Your task to perform on an android device: What's the weather going to be this weekend? Image 0: 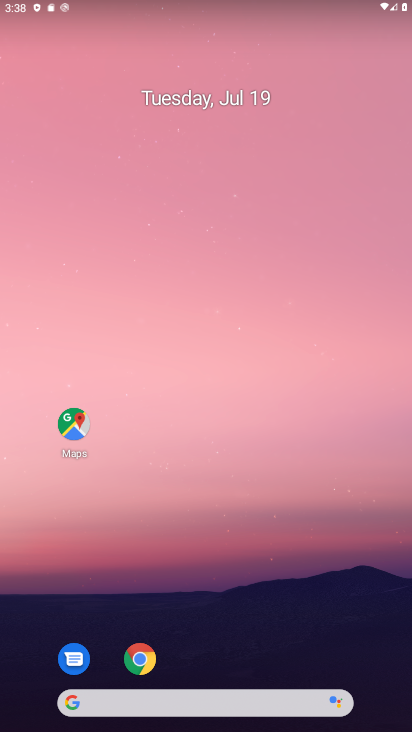
Step 0: press home button
Your task to perform on an android device: What's the weather going to be this weekend? Image 1: 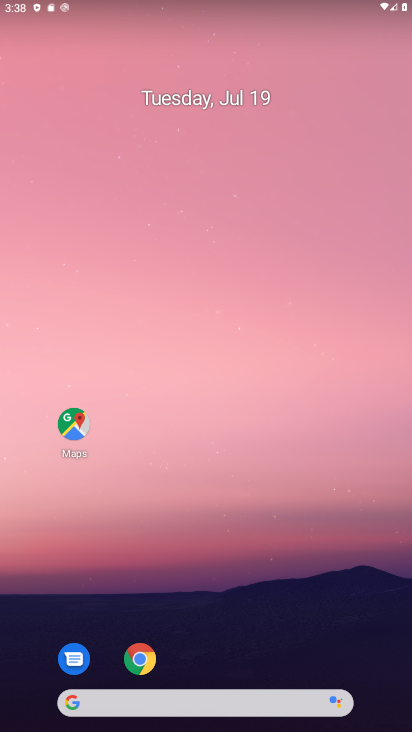
Step 1: click (362, 116)
Your task to perform on an android device: What's the weather going to be this weekend? Image 2: 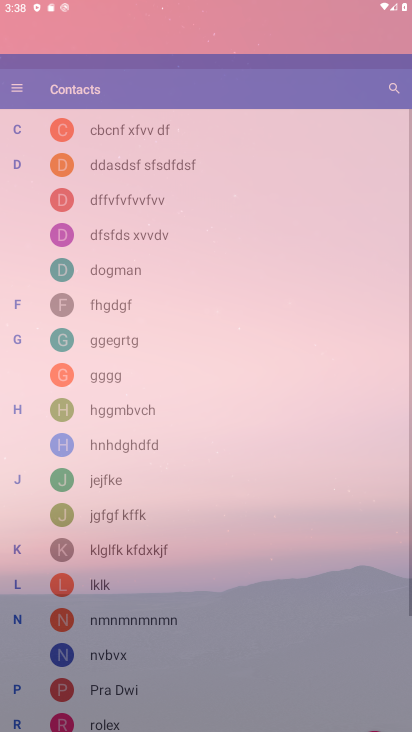
Step 2: drag from (295, 663) to (259, 94)
Your task to perform on an android device: What's the weather going to be this weekend? Image 3: 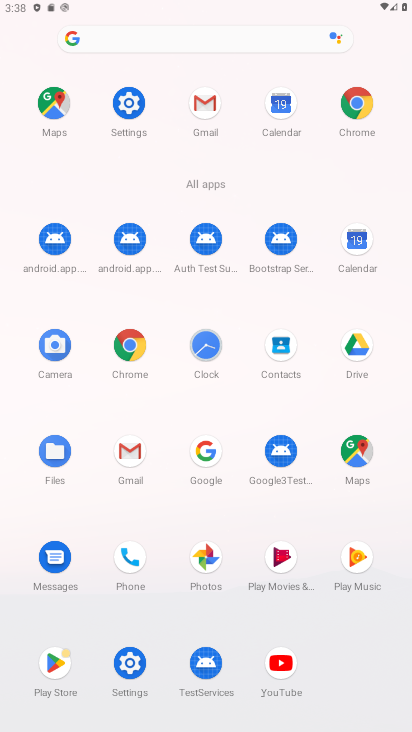
Step 3: click (348, 102)
Your task to perform on an android device: What's the weather going to be this weekend? Image 4: 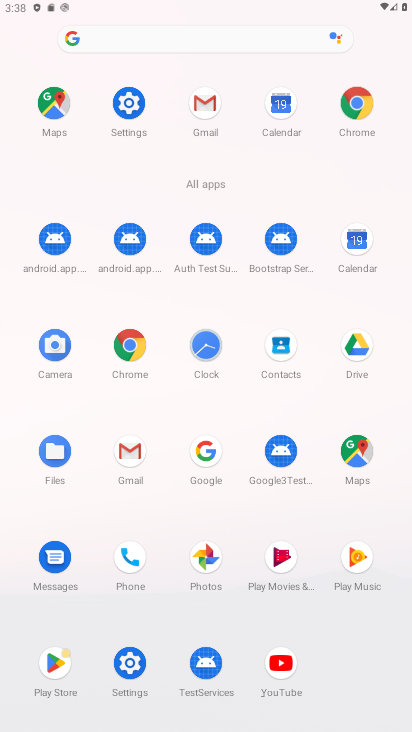
Step 4: click (348, 102)
Your task to perform on an android device: What's the weather going to be this weekend? Image 5: 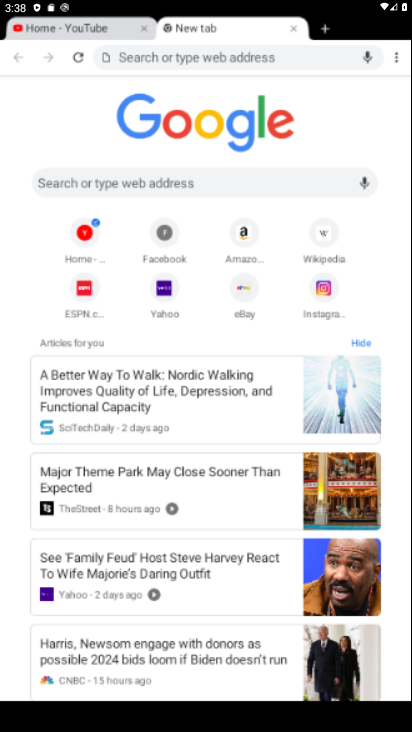
Step 5: click (349, 101)
Your task to perform on an android device: What's the weather going to be this weekend? Image 6: 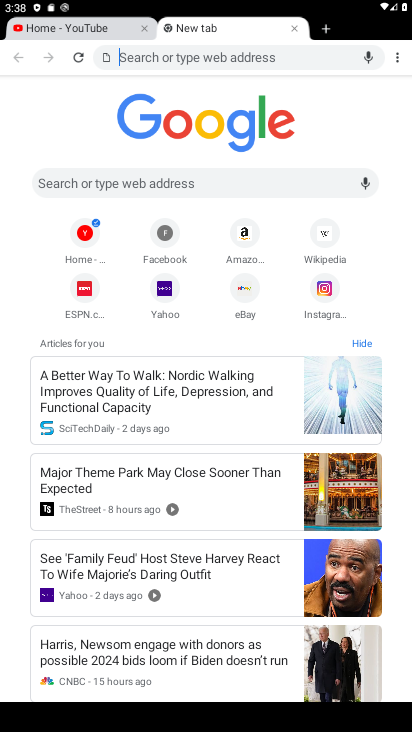
Step 6: click (75, 182)
Your task to perform on an android device: What's the weather going to be this weekend? Image 7: 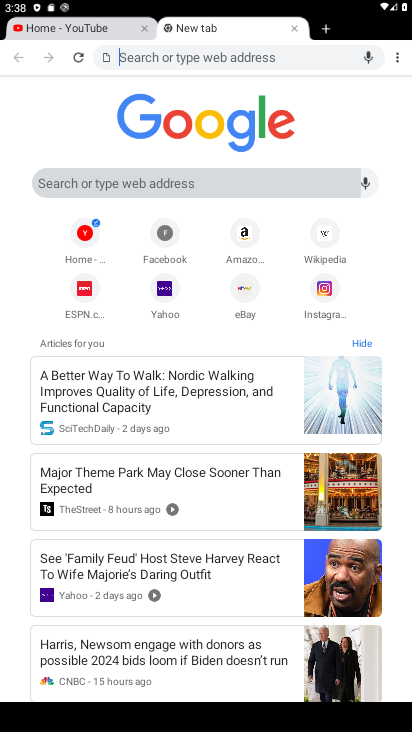
Step 7: click (80, 176)
Your task to perform on an android device: What's the weather going to be this weekend? Image 8: 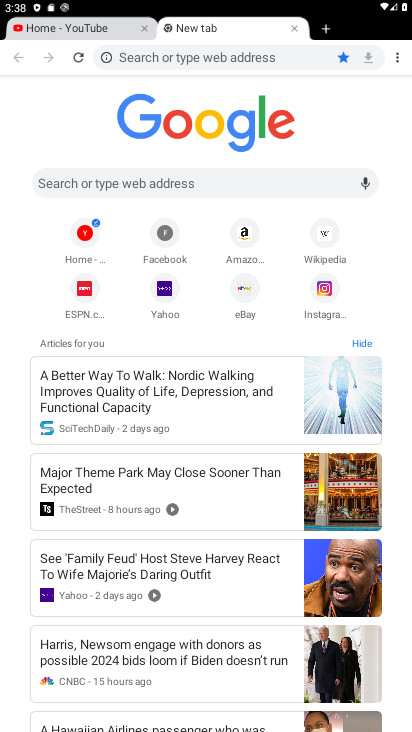
Step 8: click (77, 183)
Your task to perform on an android device: What's the weather going to be this weekend? Image 9: 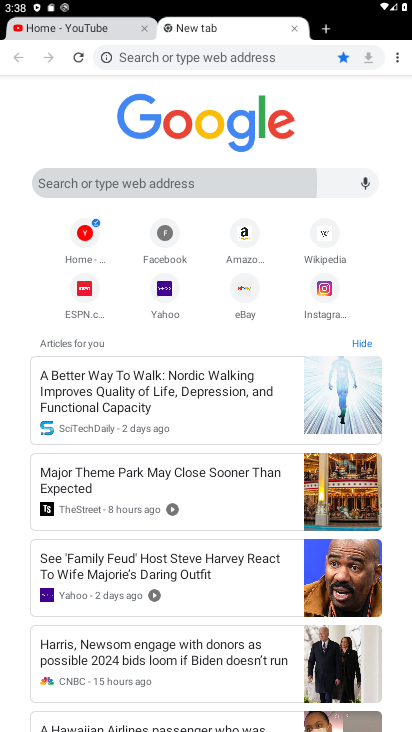
Step 9: click (77, 183)
Your task to perform on an android device: What's the weather going to be this weekend? Image 10: 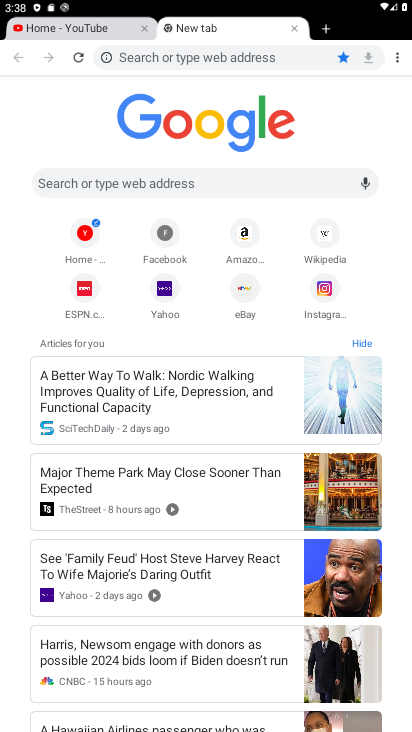
Step 10: click (140, 51)
Your task to perform on an android device: What's the weather going to be this weekend? Image 11: 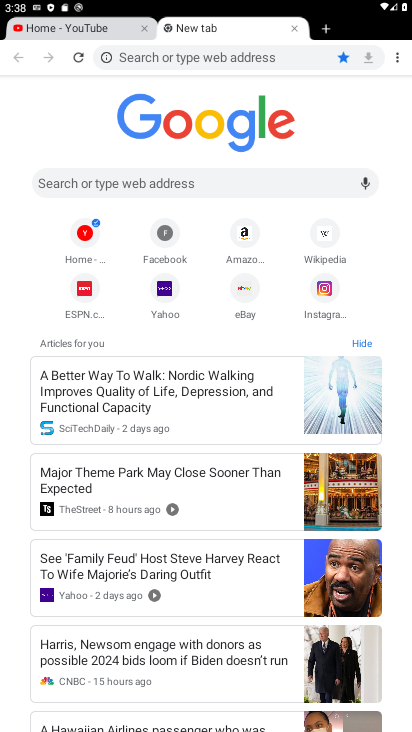
Step 11: click (128, 55)
Your task to perform on an android device: What's the weather going to be this weekend? Image 12: 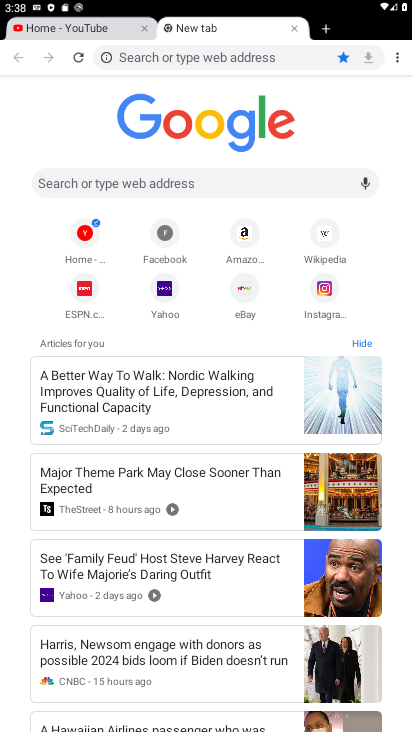
Step 12: click (132, 55)
Your task to perform on an android device: What's the weather going to be this weekend? Image 13: 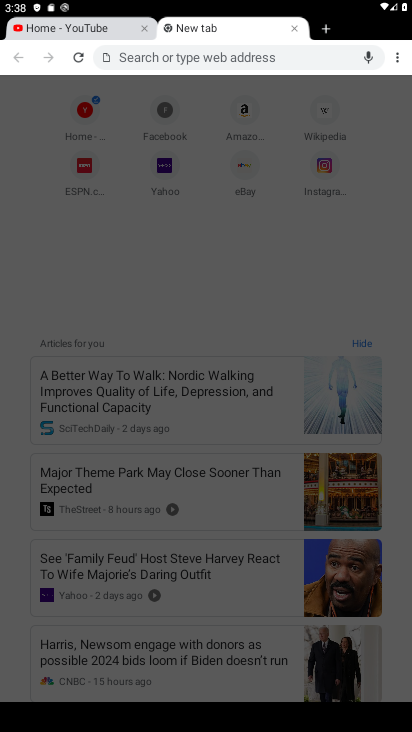
Step 13: click (132, 55)
Your task to perform on an android device: What's the weather going to be this weekend? Image 14: 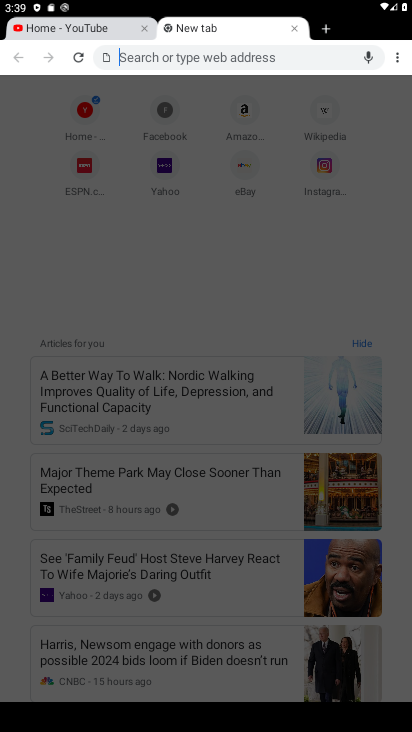
Step 14: type "what's th e weather going to be this weekend?"
Your task to perform on an android device: What's the weather going to be this weekend? Image 15: 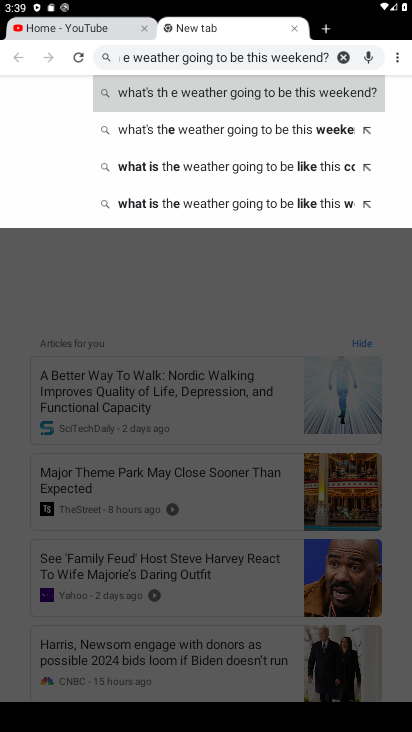
Step 15: click (314, 112)
Your task to perform on an android device: What's the weather going to be this weekend? Image 16: 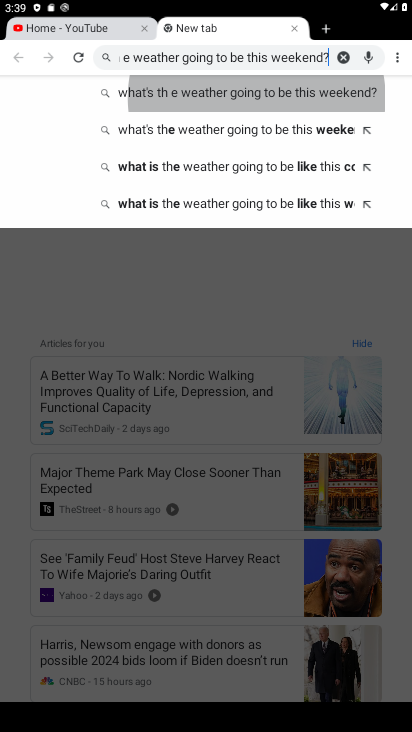
Step 16: click (314, 98)
Your task to perform on an android device: What's the weather going to be this weekend? Image 17: 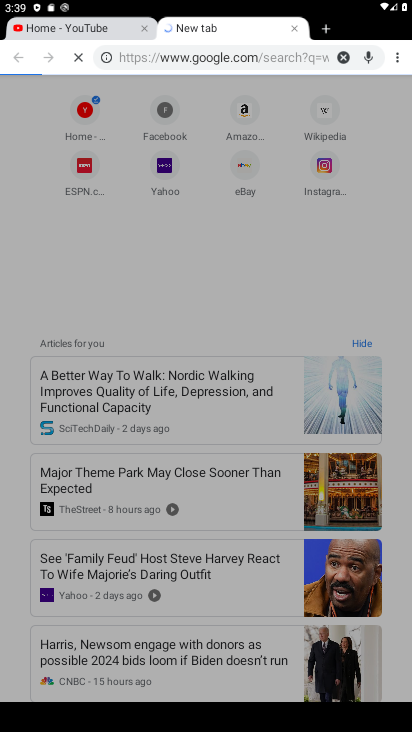
Step 17: click (314, 97)
Your task to perform on an android device: What's the weather going to be this weekend? Image 18: 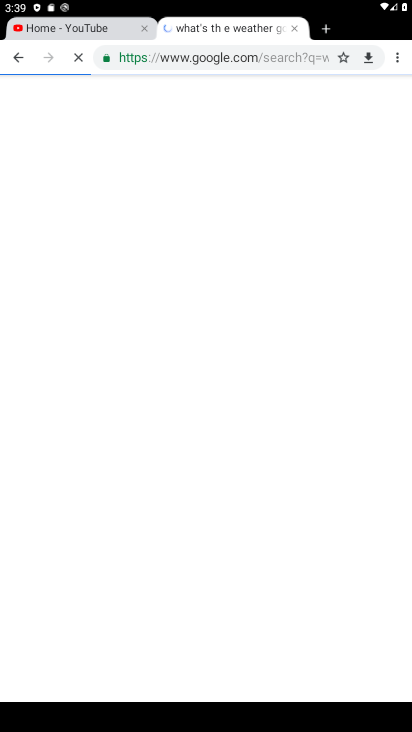
Step 18: click (315, 96)
Your task to perform on an android device: What's the weather going to be this weekend? Image 19: 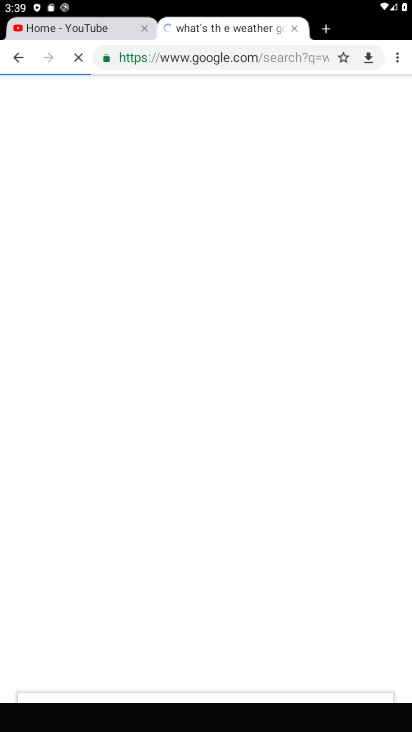
Step 19: click (316, 96)
Your task to perform on an android device: What's the weather going to be this weekend? Image 20: 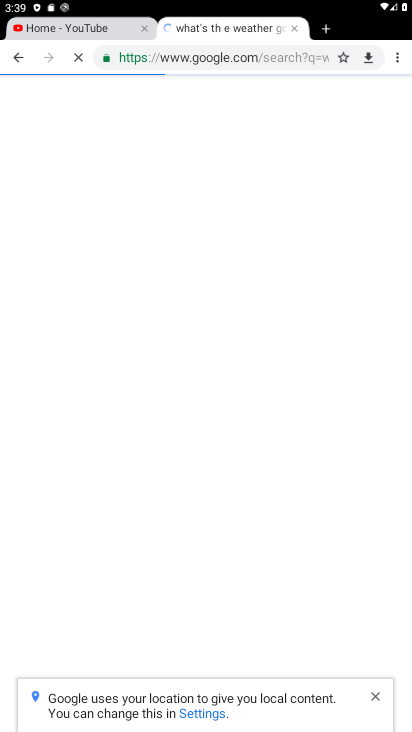
Step 20: task complete